Your task to perform on an android device: Turn off the flashlight Image 0: 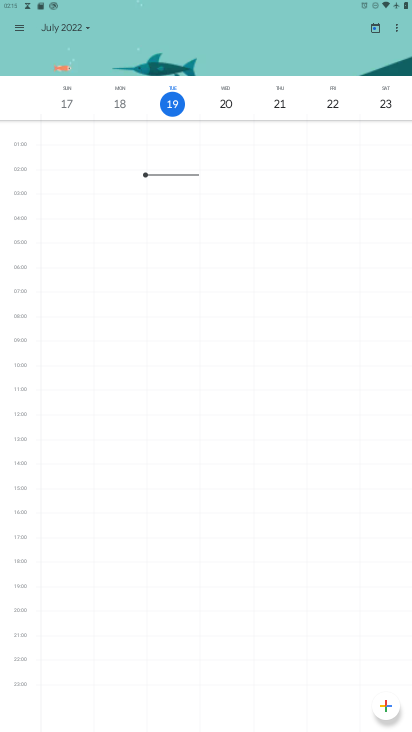
Step 0: press home button
Your task to perform on an android device: Turn off the flashlight Image 1: 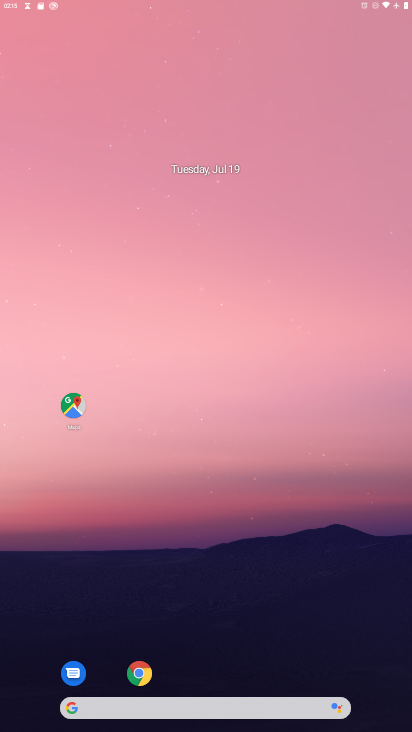
Step 1: drag from (246, 650) to (253, 140)
Your task to perform on an android device: Turn off the flashlight Image 2: 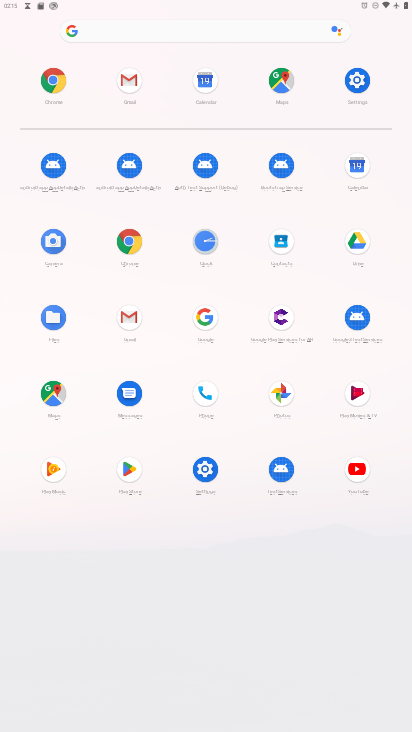
Step 2: click (362, 68)
Your task to perform on an android device: Turn off the flashlight Image 3: 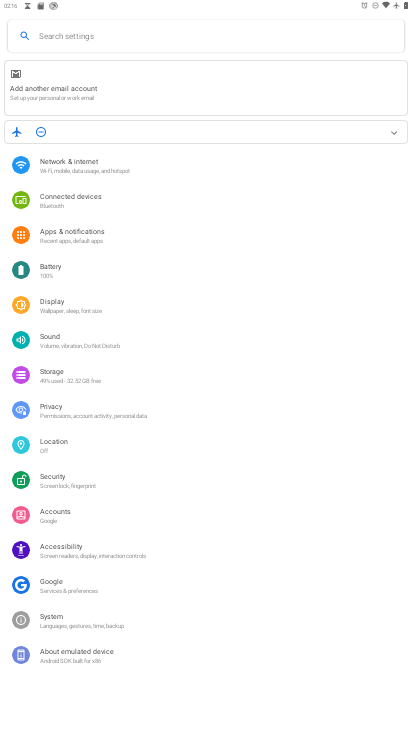
Step 3: task complete